Your task to perform on an android device: Search for a 1/4" hex shank drill bit on Lowe's. Image 0: 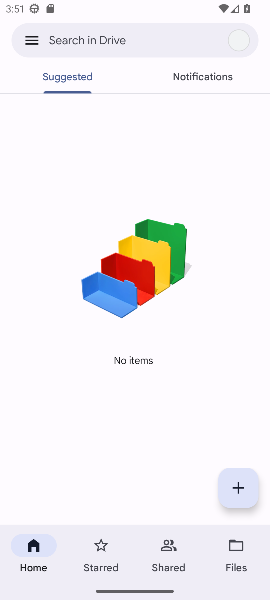
Step 0: press home button
Your task to perform on an android device: Search for a 1/4" hex shank drill bit on Lowe's. Image 1: 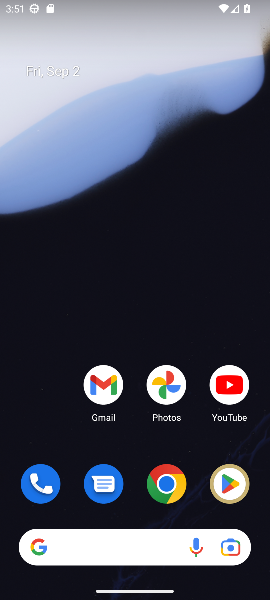
Step 1: click (170, 487)
Your task to perform on an android device: Search for a 1/4" hex shank drill bit on Lowe's. Image 2: 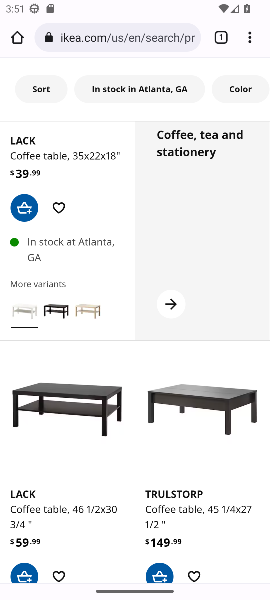
Step 2: click (111, 36)
Your task to perform on an android device: Search for a 1/4" hex shank drill bit on Lowe's. Image 3: 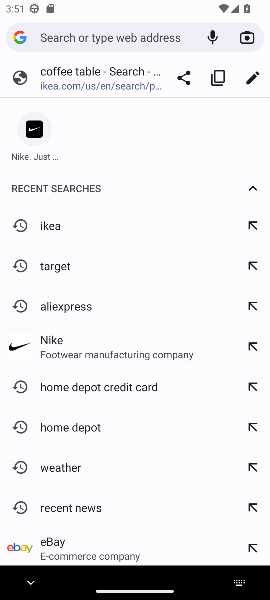
Step 3: type "Lowe's"
Your task to perform on an android device: Search for a 1/4" hex shank drill bit on Lowe's. Image 4: 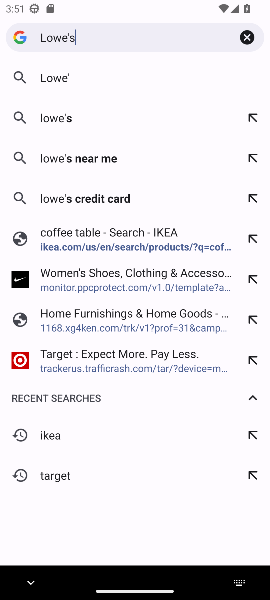
Step 4: press enter
Your task to perform on an android device: Search for a 1/4" hex shank drill bit on Lowe's. Image 5: 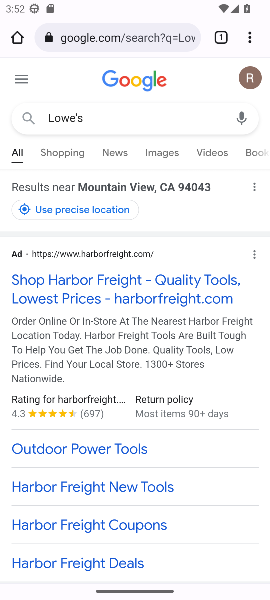
Step 5: drag from (140, 440) to (216, 234)
Your task to perform on an android device: Search for a 1/4" hex shank drill bit on Lowe's. Image 6: 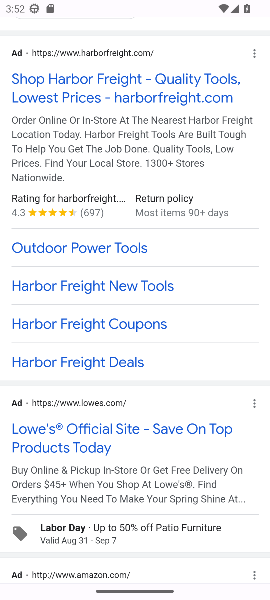
Step 6: click (101, 422)
Your task to perform on an android device: Search for a 1/4" hex shank drill bit on Lowe's. Image 7: 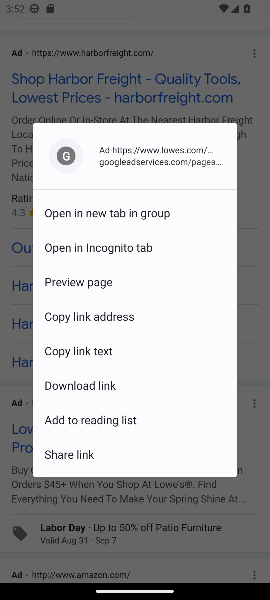
Step 7: click (245, 515)
Your task to perform on an android device: Search for a 1/4" hex shank drill bit on Lowe's. Image 8: 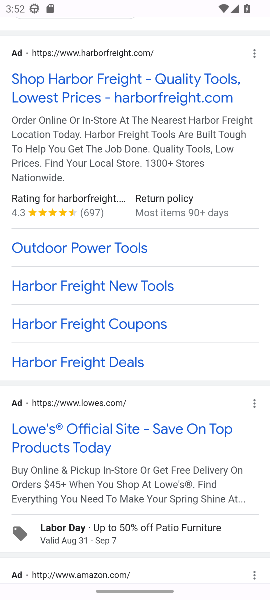
Step 8: click (85, 428)
Your task to perform on an android device: Search for a 1/4" hex shank drill bit on Lowe's. Image 9: 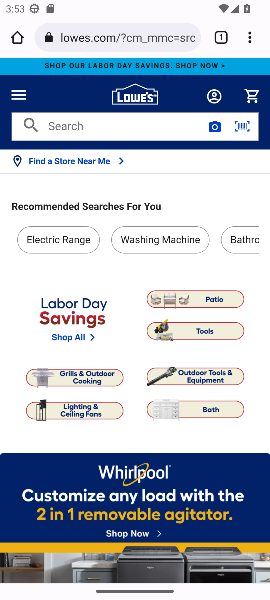
Step 9: click (96, 123)
Your task to perform on an android device: Search for a 1/4" hex shank drill bit on Lowe's. Image 10: 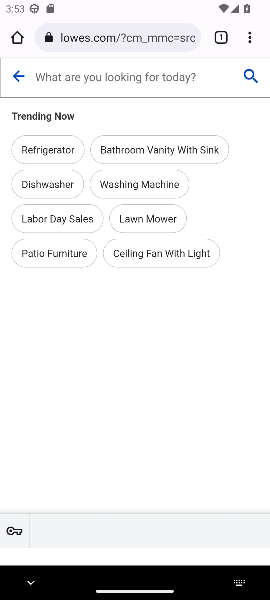
Step 10: type "1/4" hex shank drill bit "
Your task to perform on an android device: Search for a 1/4" hex shank drill bit on Lowe's. Image 11: 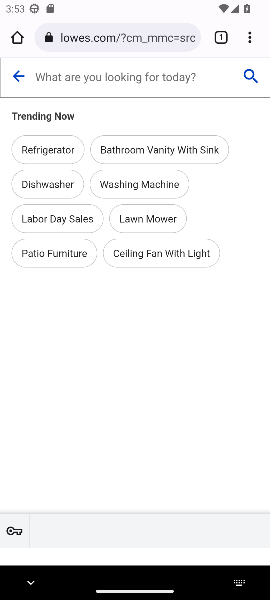
Step 11: press enter
Your task to perform on an android device: Search for a 1/4" hex shank drill bit on Lowe's. Image 12: 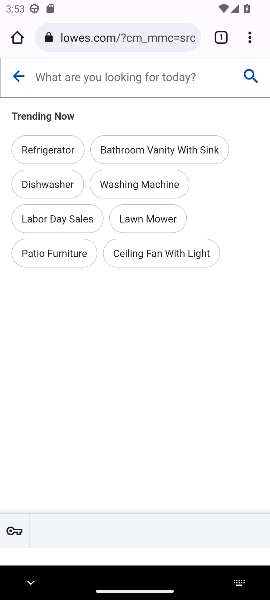
Step 12: type "1/4 hex shank drill bit"
Your task to perform on an android device: Search for a 1/4" hex shank drill bit on Lowe's. Image 13: 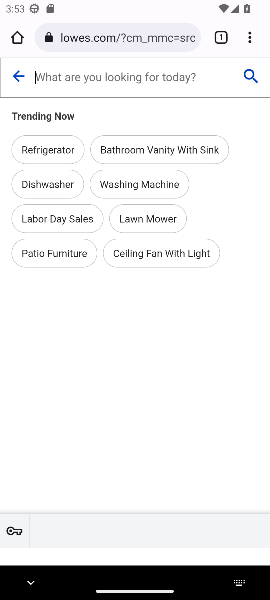
Step 13: press enter
Your task to perform on an android device: Search for a 1/4" hex shank drill bit on Lowe's. Image 14: 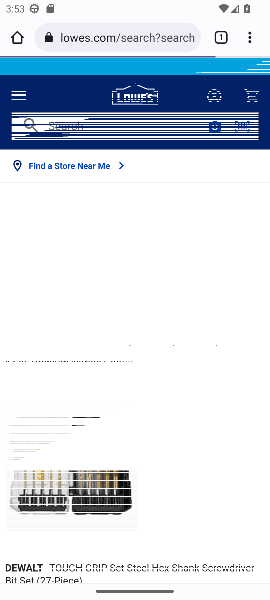
Step 14: task complete